Your task to perform on an android device: turn off wifi Image 0: 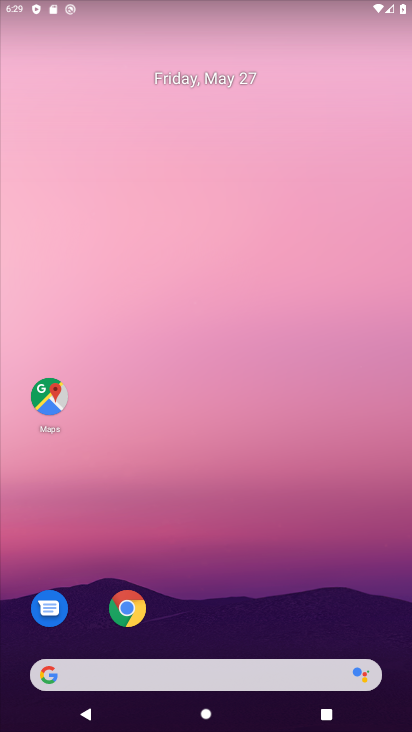
Step 0: press home button
Your task to perform on an android device: turn off wifi Image 1: 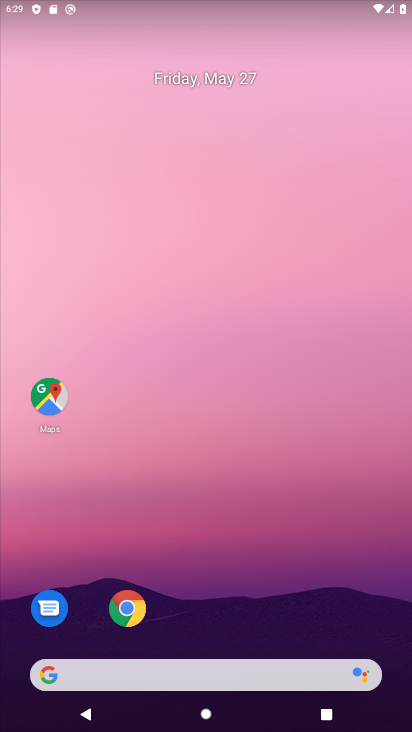
Step 1: press home button
Your task to perform on an android device: turn off wifi Image 2: 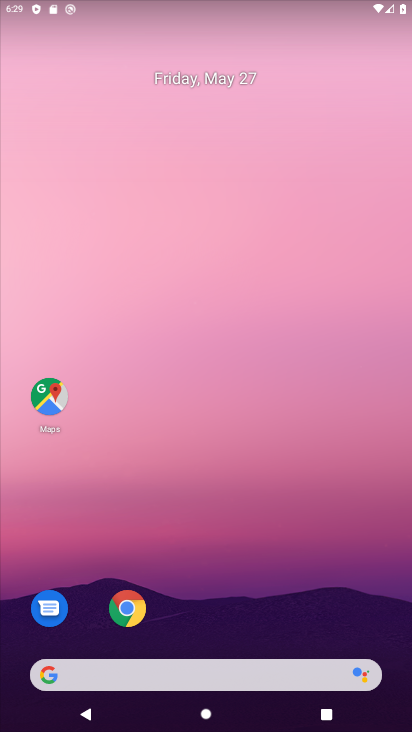
Step 2: drag from (214, 621) to (267, 27)
Your task to perform on an android device: turn off wifi Image 3: 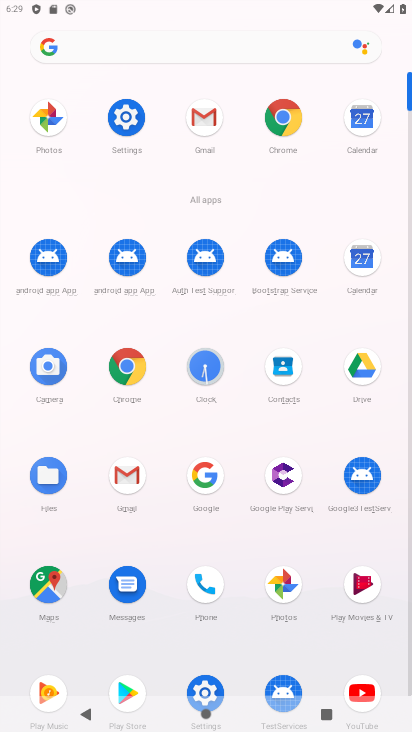
Step 3: click (124, 113)
Your task to perform on an android device: turn off wifi Image 4: 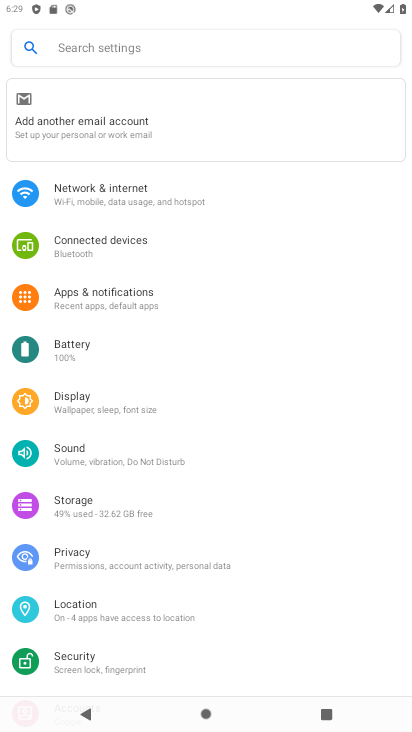
Step 4: click (156, 190)
Your task to perform on an android device: turn off wifi Image 5: 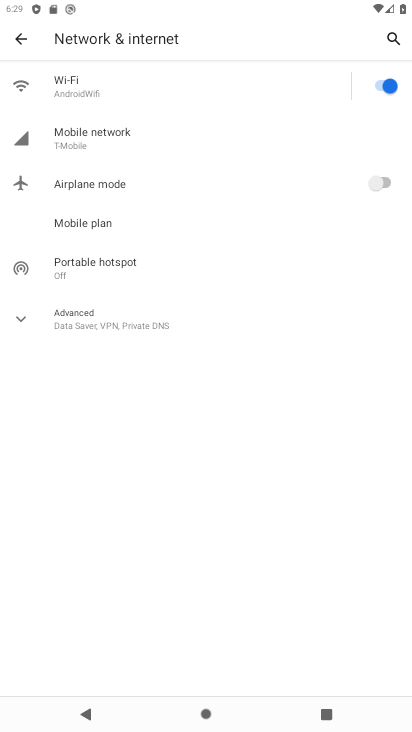
Step 5: click (379, 82)
Your task to perform on an android device: turn off wifi Image 6: 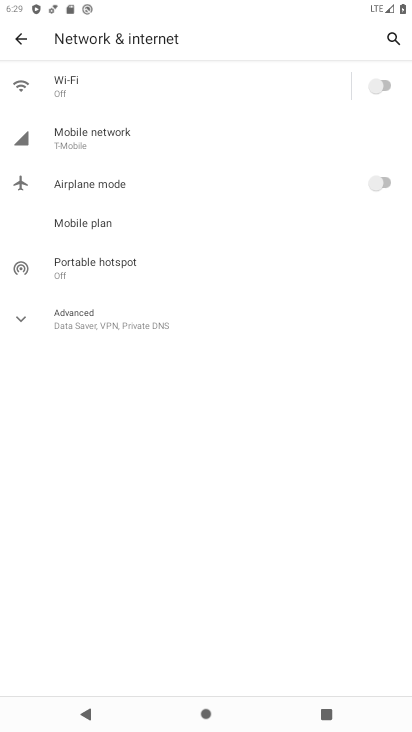
Step 6: task complete